Your task to perform on an android device: Open wifi settings Image 0: 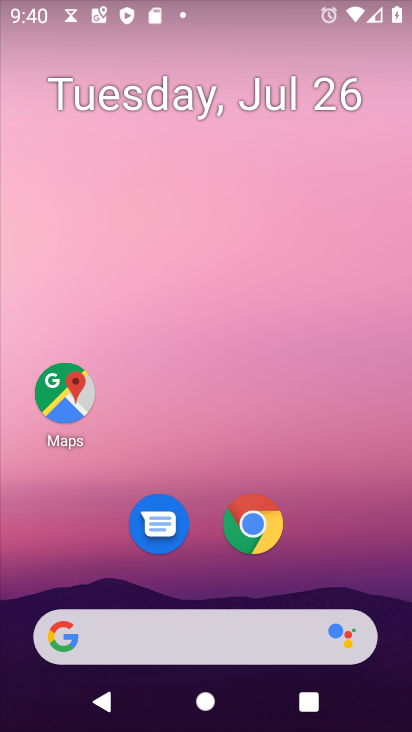
Step 0: drag from (225, 623) to (354, 92)
Your task to perform on an android device: Open wifi settings Image 1: 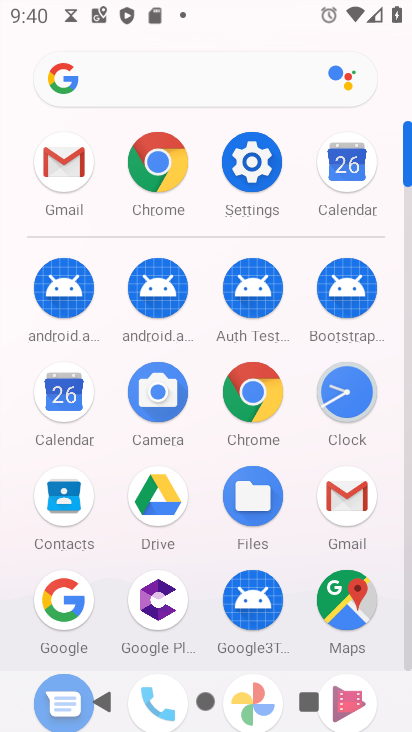
Step 1: click (263, 164)
Your task to perform on an android device: Open wifi settings Image 2: 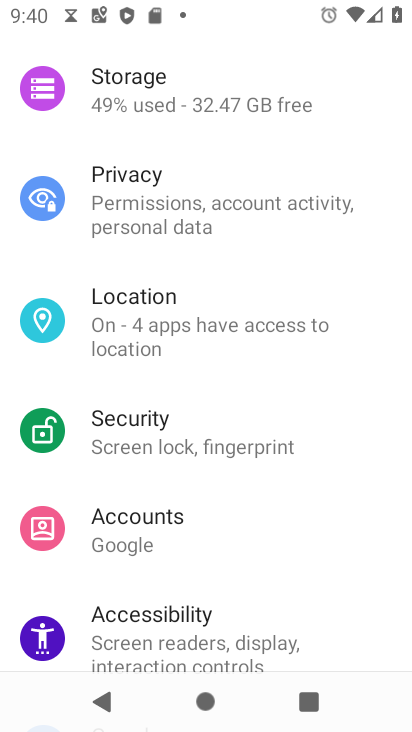
Step 2: drag from (348, 85) to (276, 570)
Your task to perform on an android device: Open wifi settings Image 3: 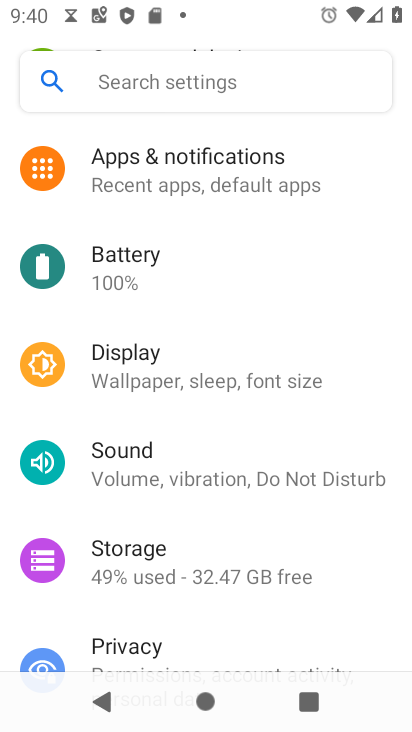
Step 3: drag from (328, 241) to (261, 643)
Your task to perform on an android device: Open wifi settings Image 4: 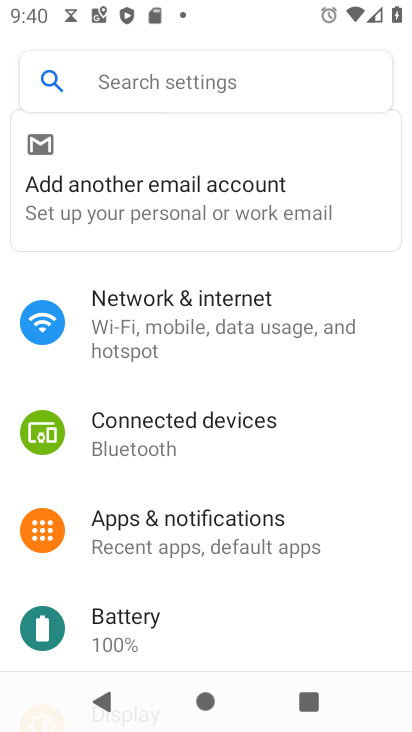
Step 4: click (235, 317)
Your task to perform on an android device: Open wifi settings Image 5: 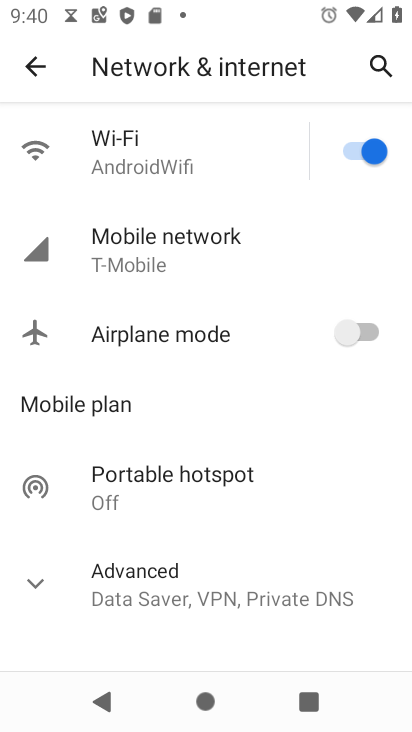
Step 5: click (125, 160)
Your task to perform on an android device: Open wifi settings Image 6: 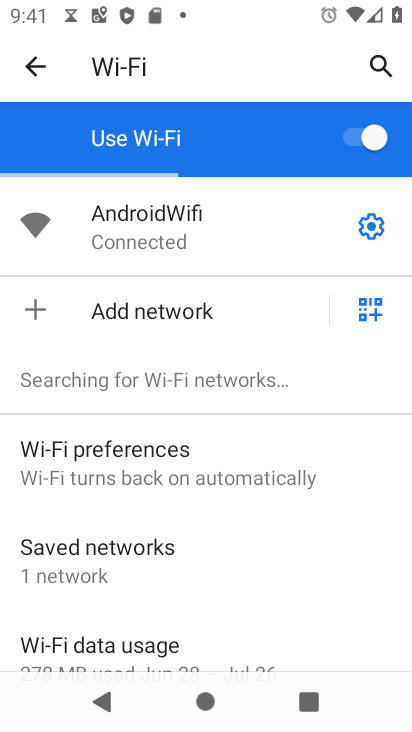
Step 6: task complete